Your task to perform on an android device: What's the weather? Image 0: 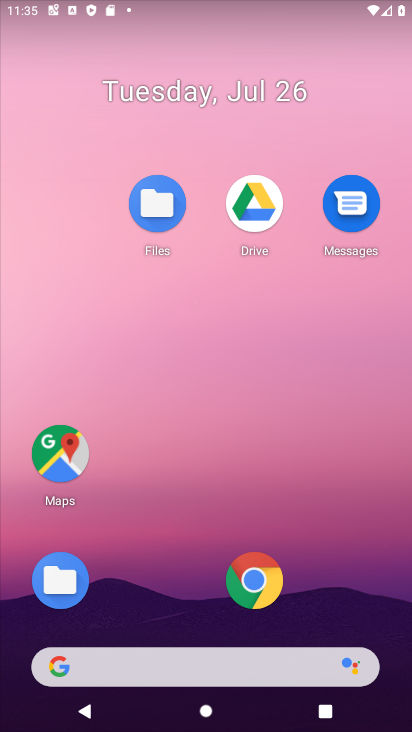
Step 0: click (155, 666)
Your task to perform on an android device: What's the weather? Image 1: 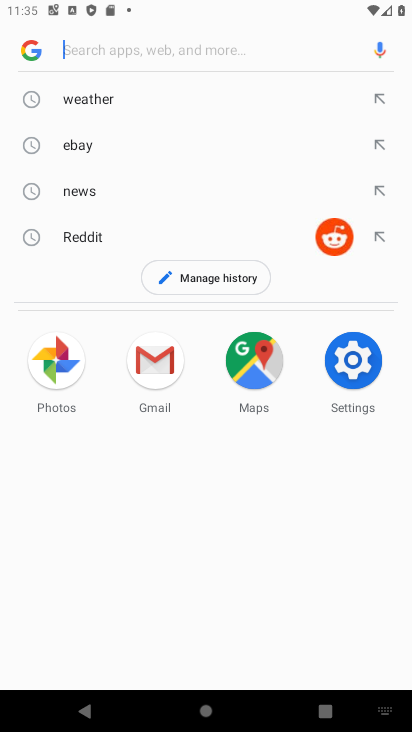
Step 1: click (80, 106)
Your task to perform on an android device: What's the weather? Image 2: 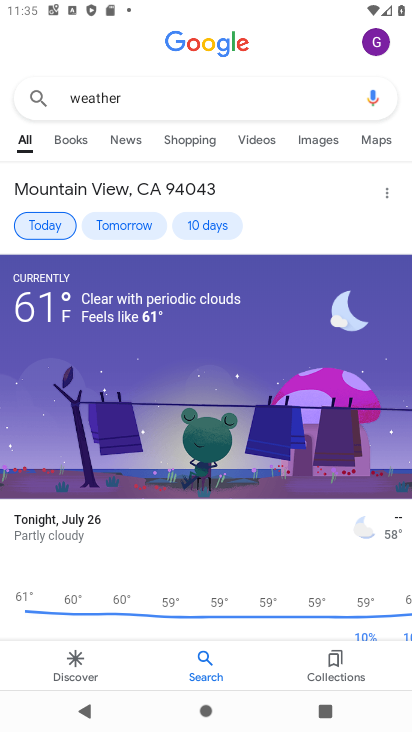
Step 2: task complete